Your task to perform on an android device: uninstall "Venmo" Image 0: 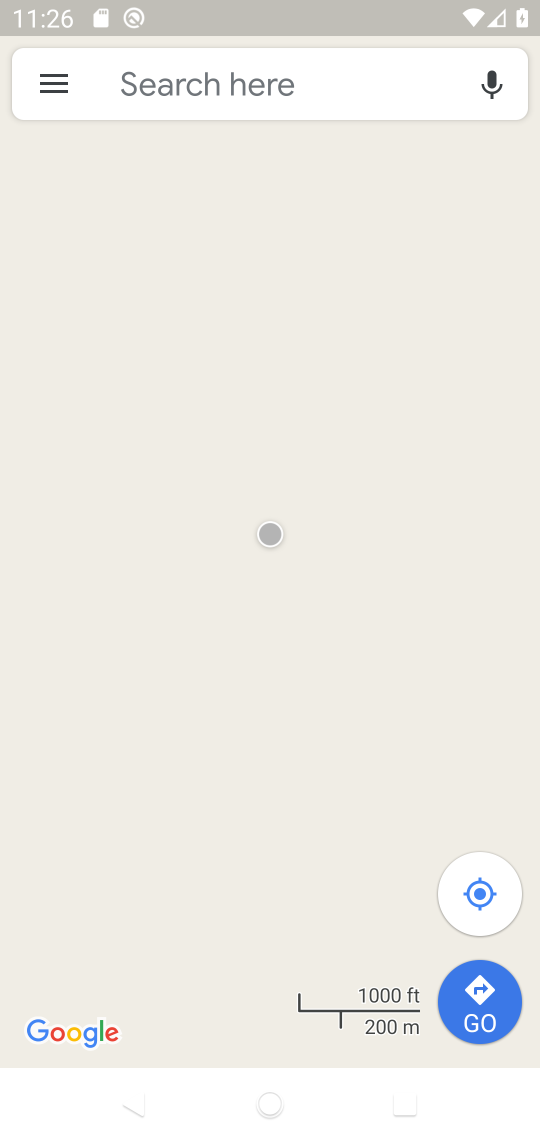
Step 0: press home button
Your task to perform on an android device: uninstall "Venmo" Image 1: 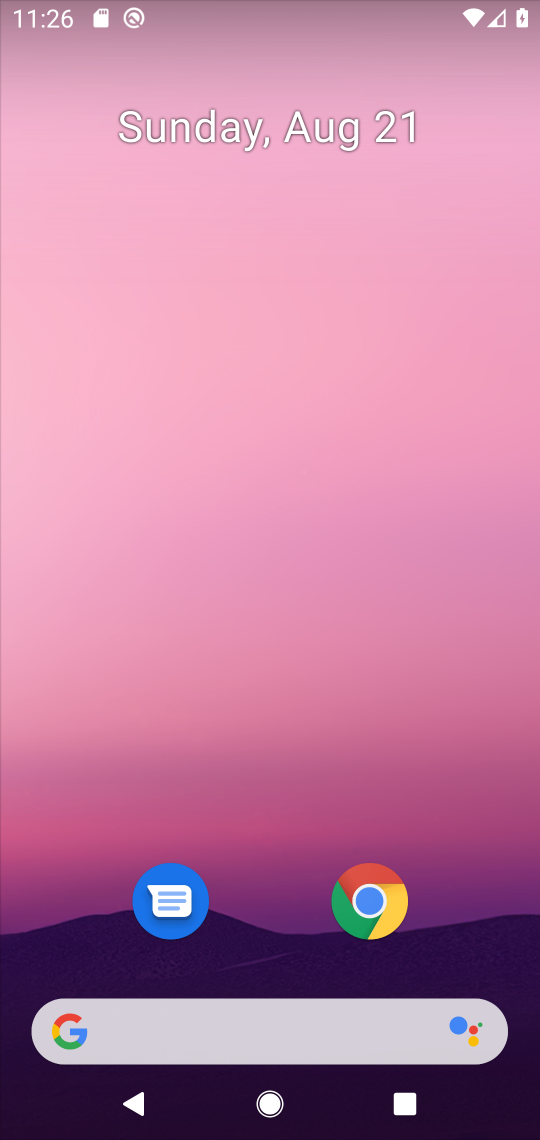
Step 1: drag from (250, 969) to (249, 0)
Your task to perform on an android device: uninstall "Venmo" Image 2: 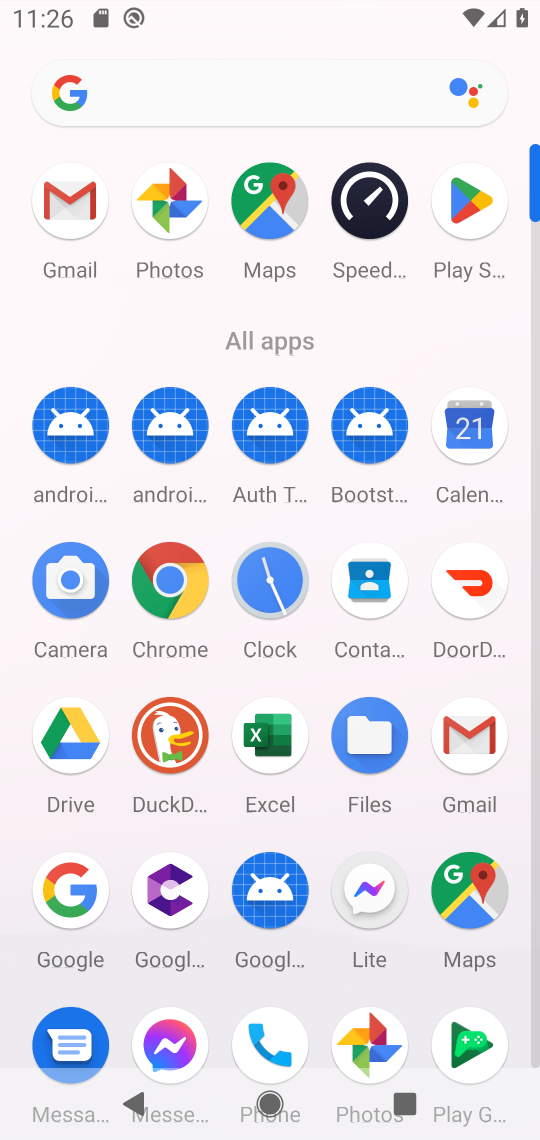
Step 2: click (498, 237)
Your task to perform on an android device: uninstall "Venmo" Image 3: 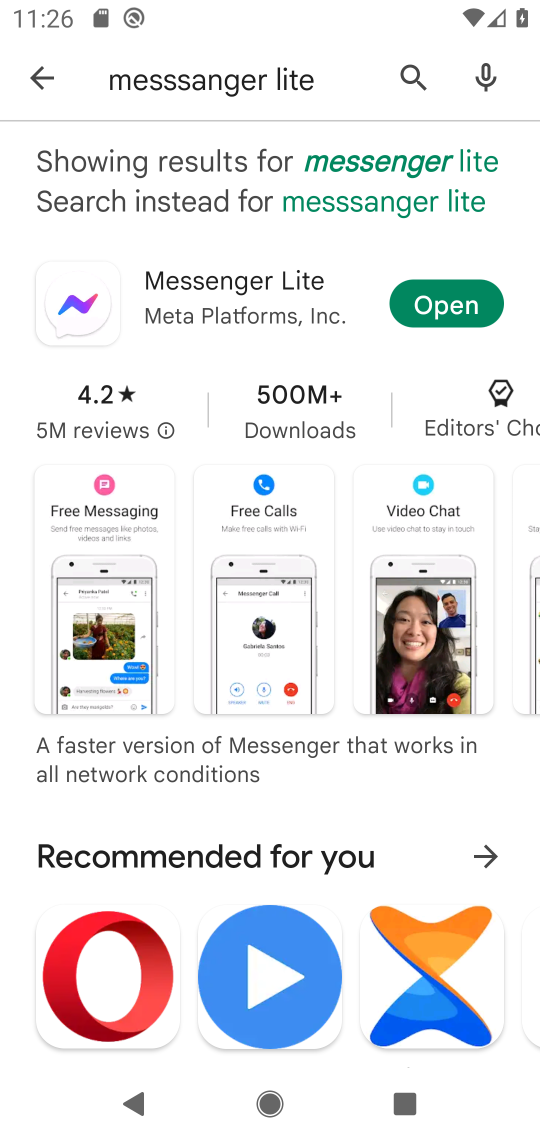
Step 3: click (394, 75)
Your task to perform on an android device: uninstall "Venmo" Image 4: 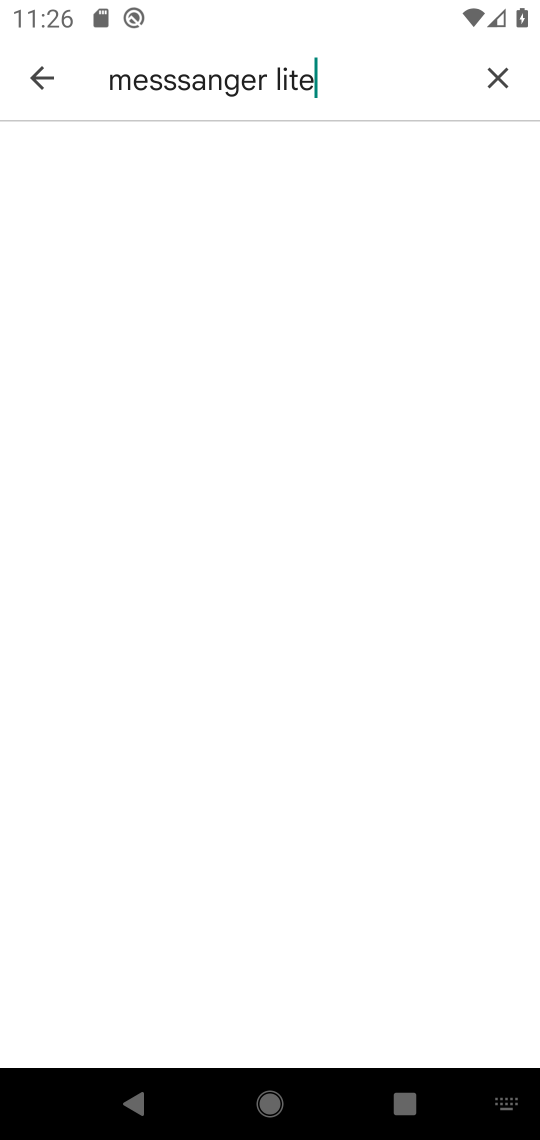
Step 4: click (502, 81)
Your task to perform on an android device: uninstall "Venmo" Image 5: 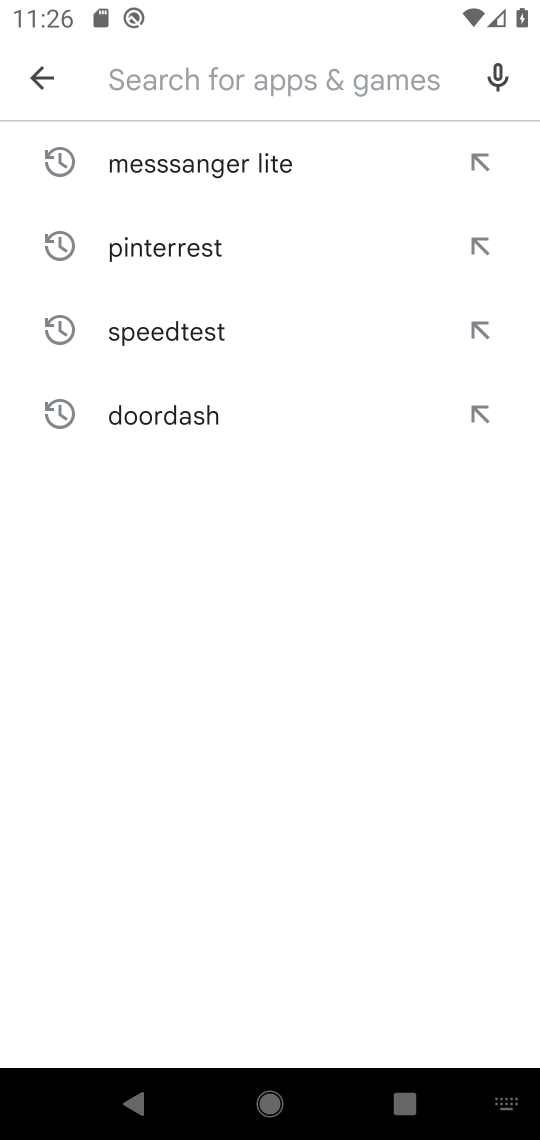
Step 5: type "venmo"
Your task to perform on an android device: uninstall "Venmo" Image 6: 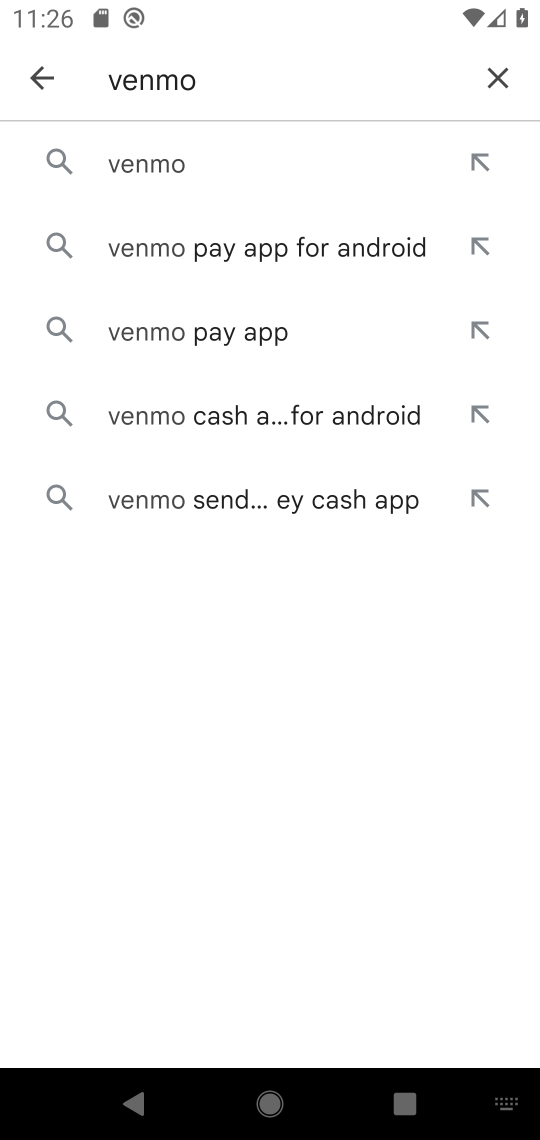
Step 6: click (191, 158)
Your task to perform on an android device: uninstall "Venmo" Image 7: 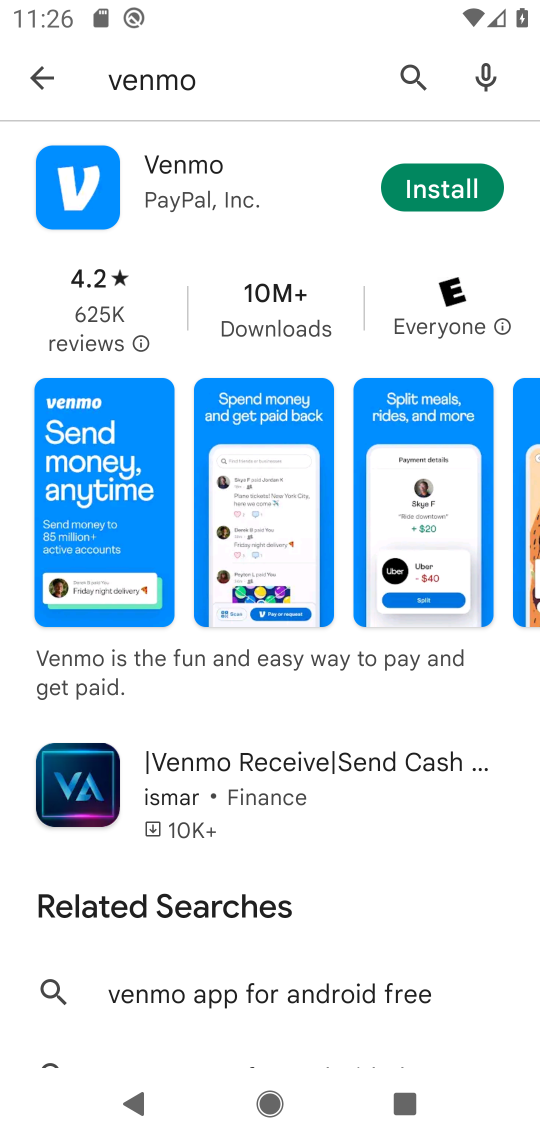
Step 7: click (451, 187)
Your task to perform on an android device: uninstall "Venmo" Image 8: 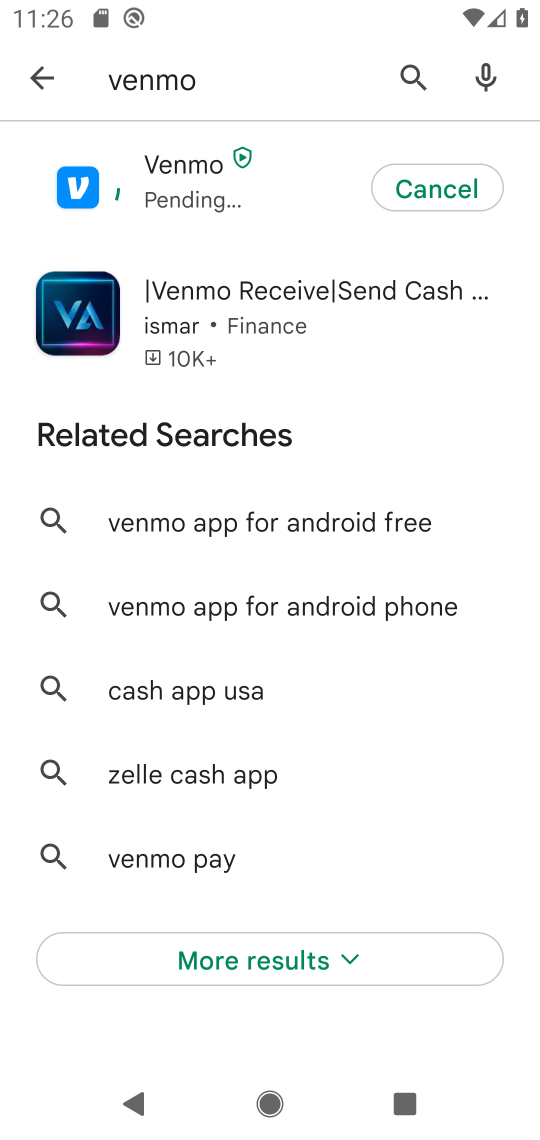
Step 8: task complete